Your task to perform on an android device: Open settings Image 0: 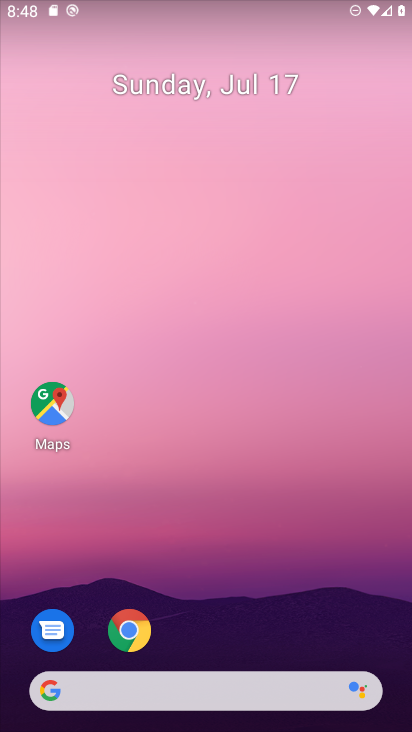
Step 0: drag from (297, 622) to (295, 380)
Your task to perform on an android device: Open settings Image 1: 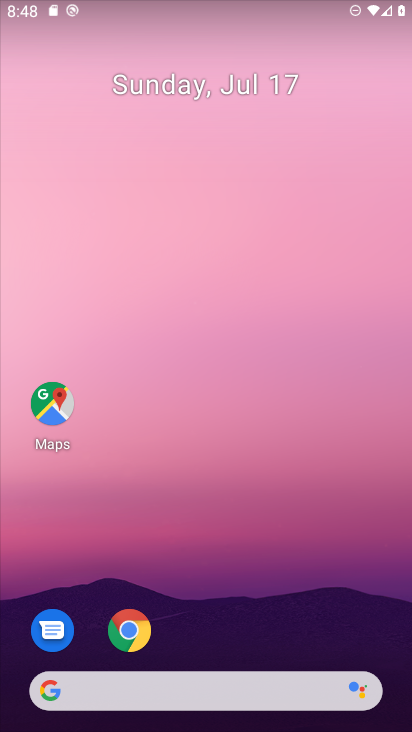
Step 1: drag from (273, 658) to (262, 108)
Your task to perform on an android device: Open settings Image 2: 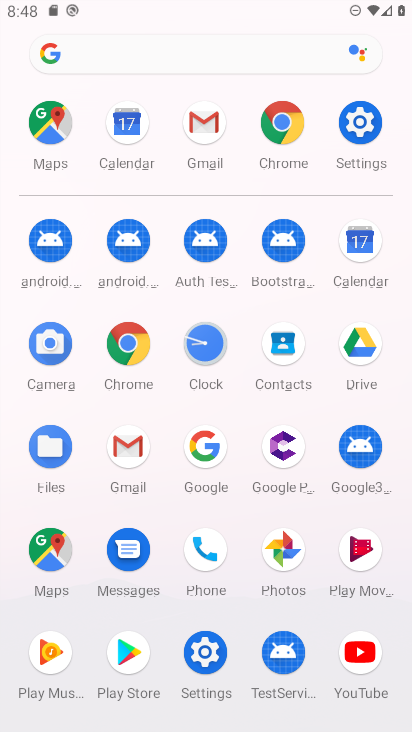
Step 2: click (366, 109)
Your task to perform on an android device: Open settings Image 3: 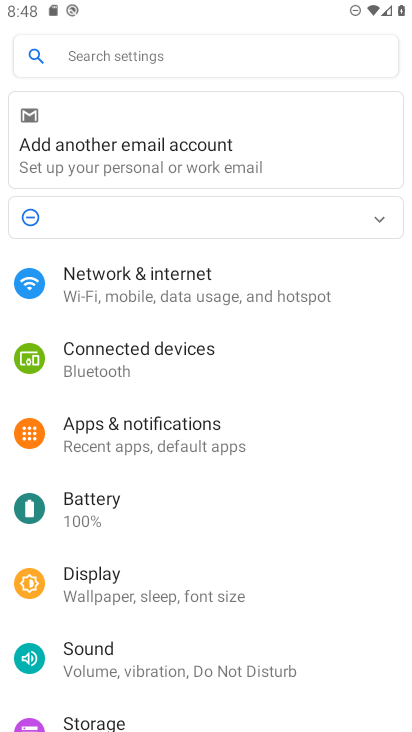
Step 3: task complete